Your task to perform on an android device: Open calendar and show me the first week of next month Image 0: 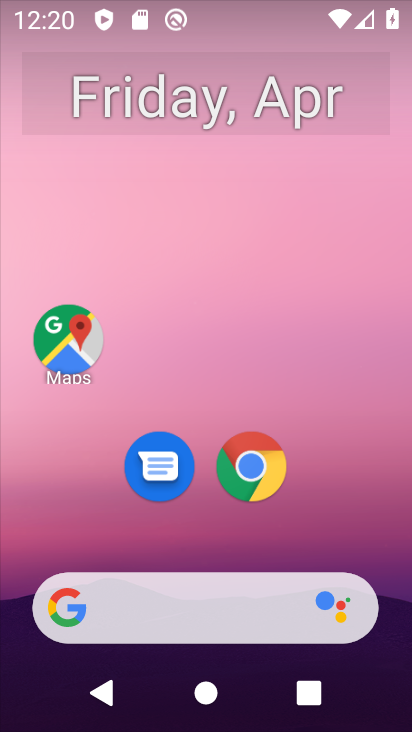
Step 0: drag from (385, 544) to (352, 154)
Your task to perform on an android device: Open calendar and show me the first week of next month Image 1: 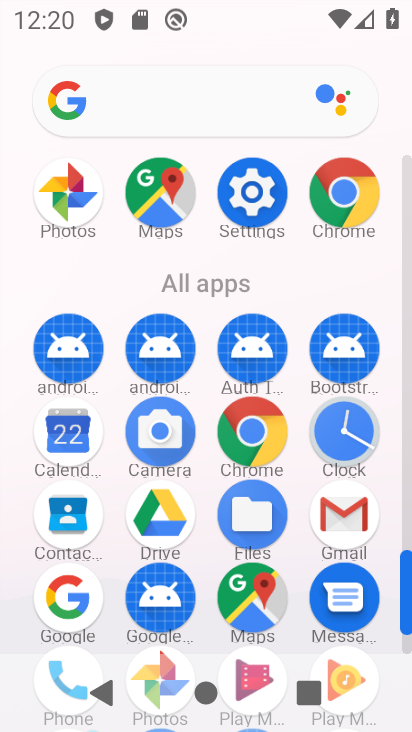
Step 1: click (67, 431)
Your task to perform on an android device: Open calendar and show me the first week of next month Image 2: 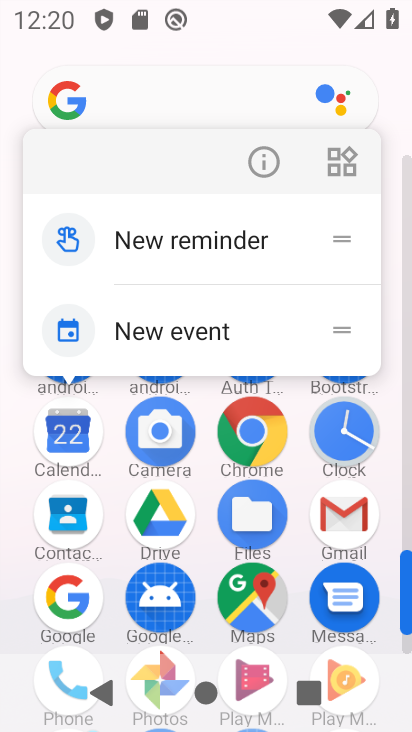
Step 2: click (67, 438)
Your task to perform on an android device: Open calendar and show me the first week of next month Image 3: 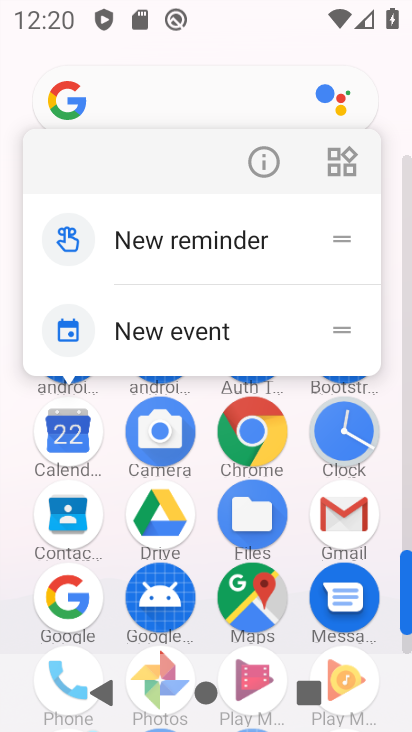
Step 3: click (68, 441)
Your task to perform on an android device: Open calendar and show me the first week of next month Image 4: 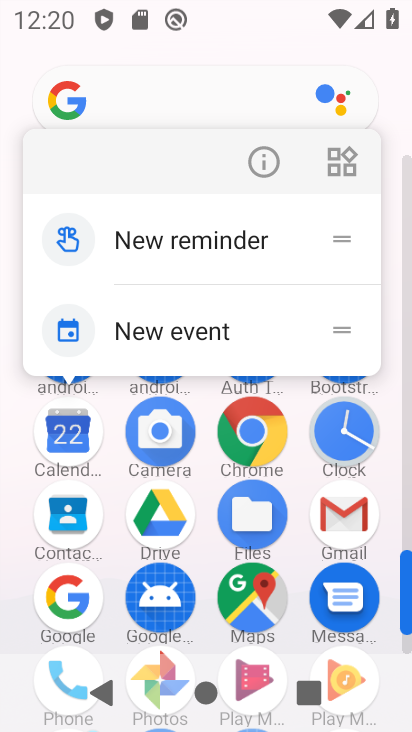
Step 4: click (75, 457)
Your task to perform on an android device: Open calendar and show me the first week of next month Image 5: 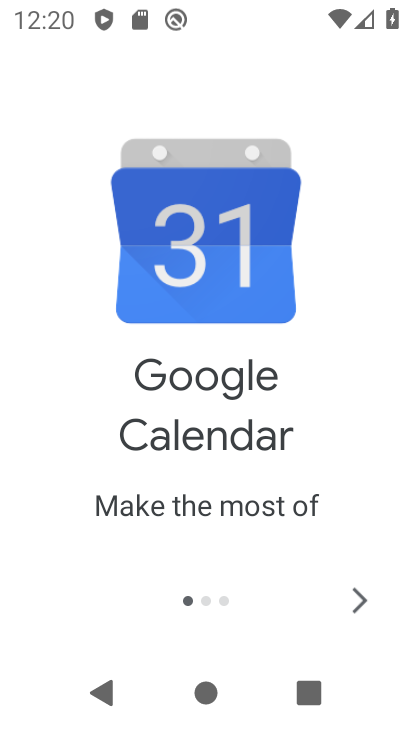
Step 5: click (356, 598)
Your task to perform on an android device: Open calendar and show me the first week of next month Image 6: 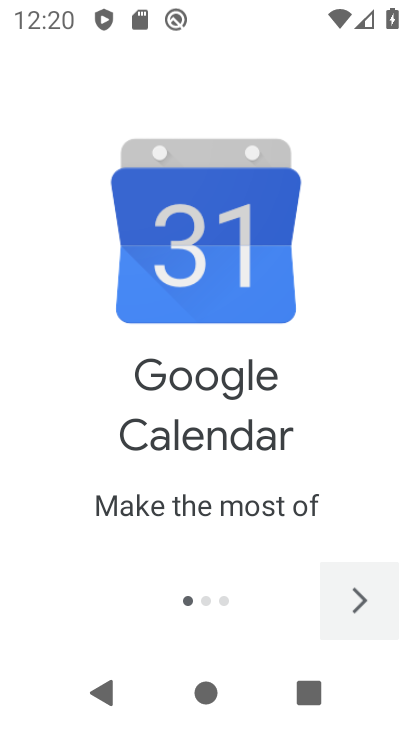
Step 6: click (355, 597)
Your task to perform on an android device: Open calendar and show me the first week of next month Image 7: 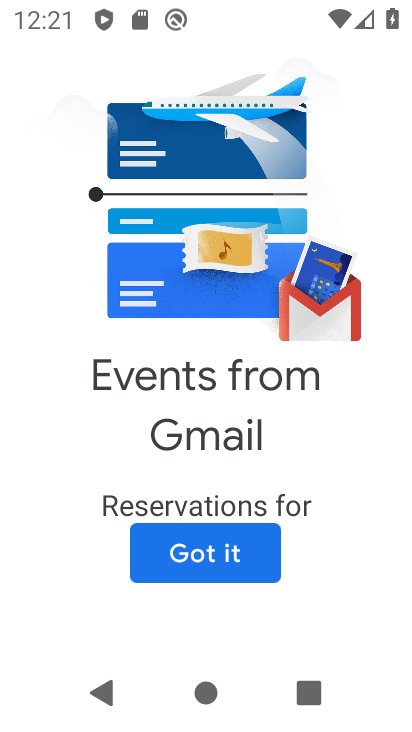
Step 7: click (355, 597)
Your task to perform on an android device: Open calendar and show me the first week of next month Image 8: 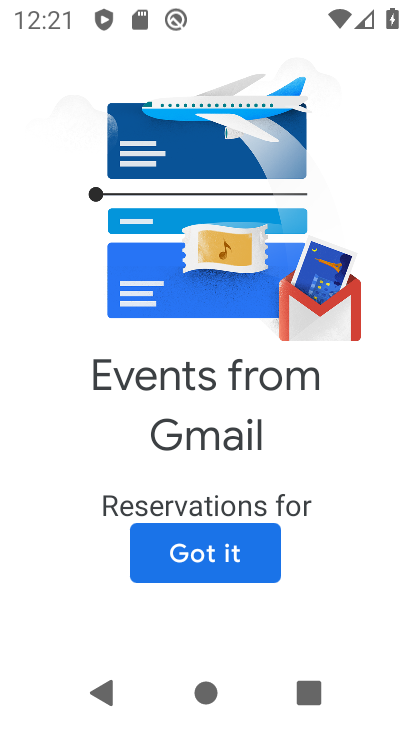
Step 8: click (216, 558)
Your task to perform on an android device: Open calendar and show me the first week of next month Image 9: 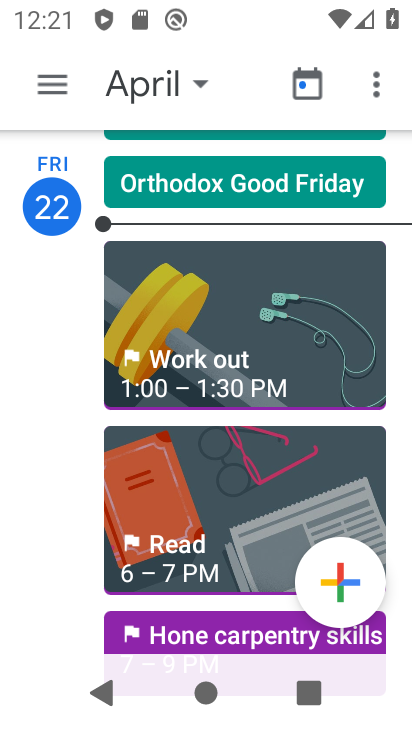
Step 9: click (158, 95)
Your task to perform on an android device: Open calendar and show me the first week of next month Image 10: 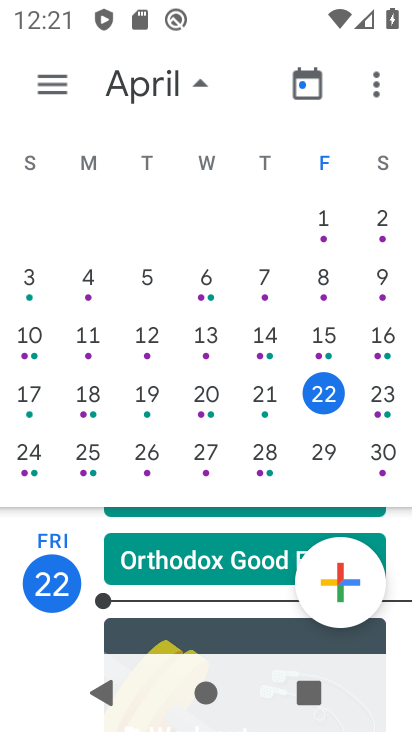
Step 10: task complete